Your task to perform on an android device: Go to Wikipedia Image 0: 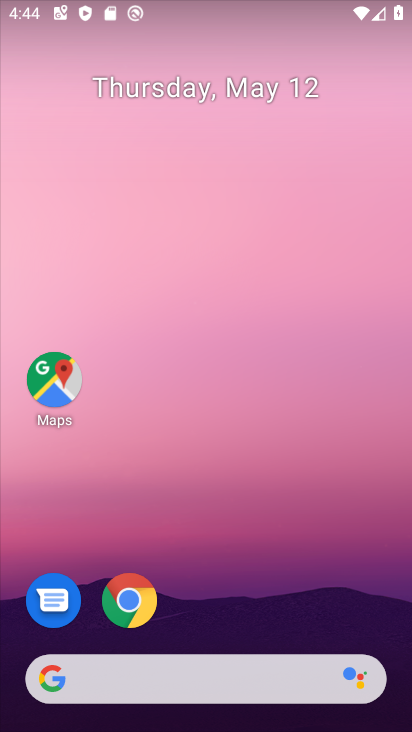
Step 0: drag from (210, 608) to (257, 190)
Your task to perform on an android device: Go to Wikipedia Image 1: 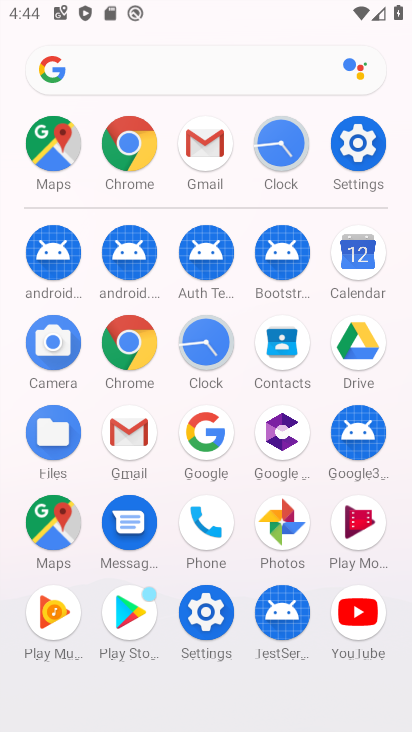
Step 1: click (123, 139)
Your task to perform on an android device: Go to Wikipedia Image 2: 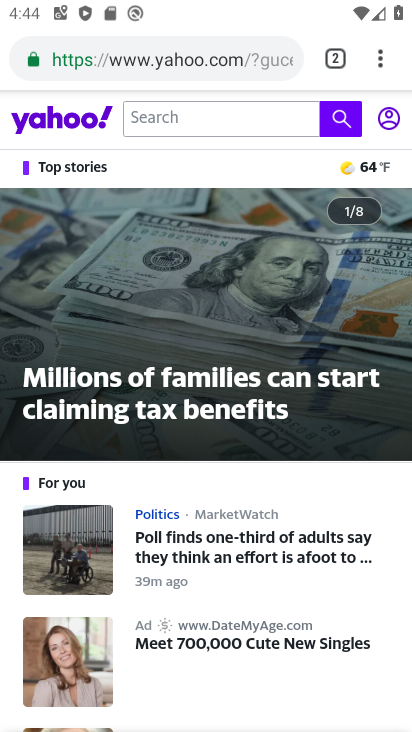
Step 2: drag from (377, 48) to (204, 633)
Your task to perform on an android device: Go to Wikipedia Image 3: 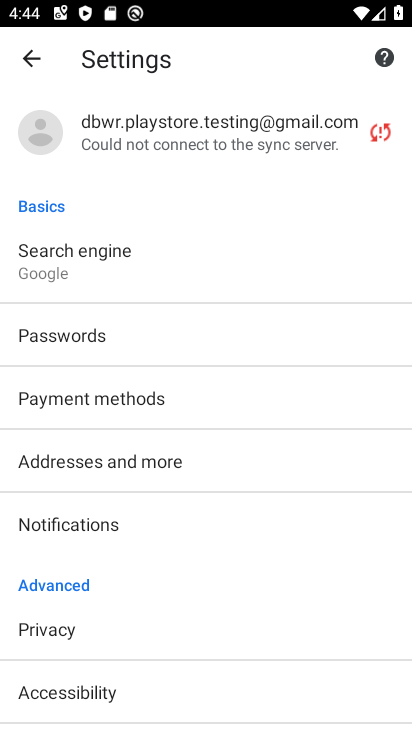
Step 3: click (30, 44)
Your task to perform on an android device: Go to Wikipedia Image 4: 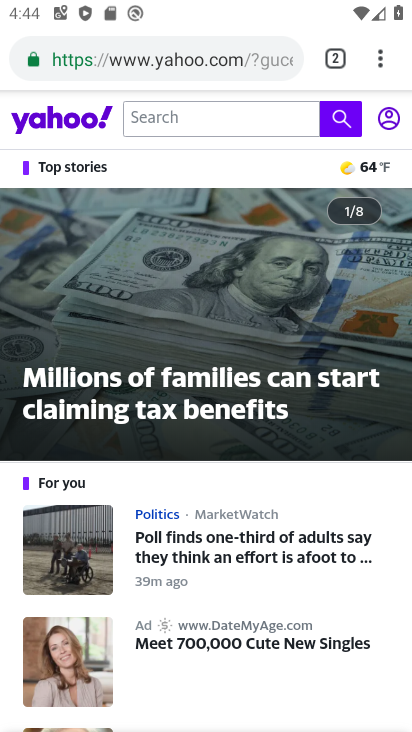
Step 4: click (333, 68)
Your task to perform on an android device: Go to Wikipedia Image 5: 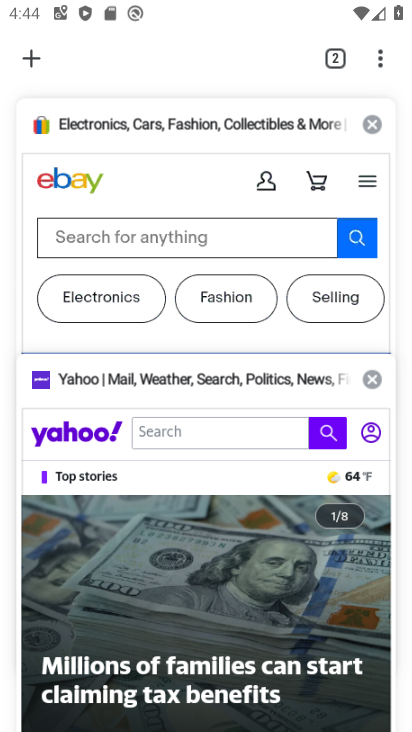
Step 5: click (23, 55)
Your task to perform on an android device: Go to Wikipedia Image 6: 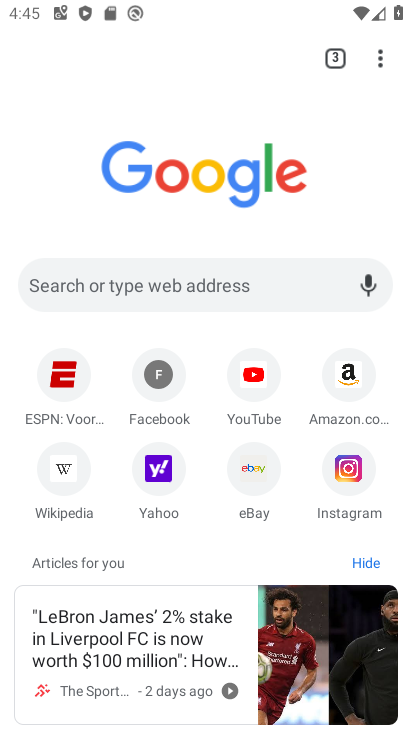
Step 6: click (66, 458)
Your task to perform on an android device: Go to Wikipedia Image 7: 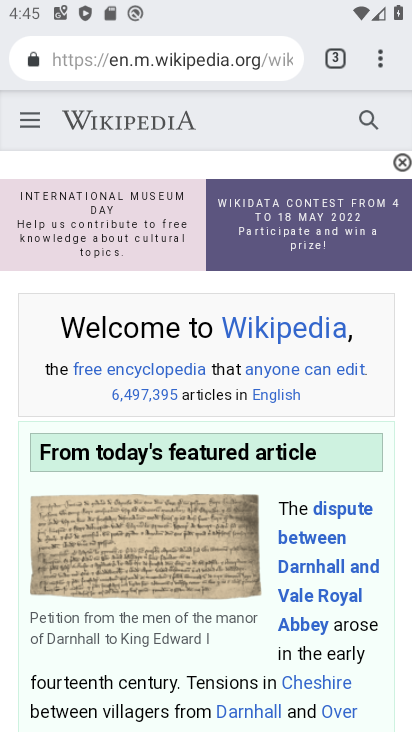
Step 7: task complete